Your task to perform on an android device: Go to Maps Image 0: 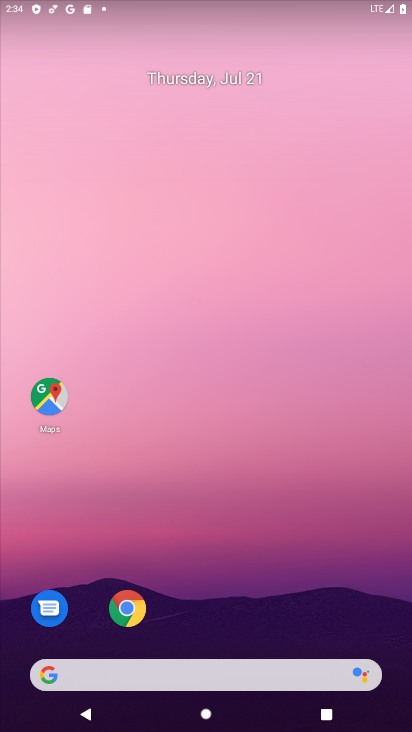
Step 0: click (50, 394)
Your task to perform on an android device: Go to Maps Image 1: 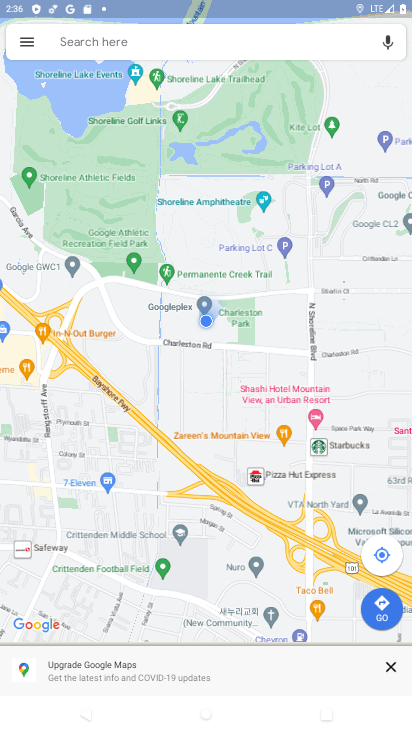
Step 1: task complete